Your task to perform on an android device: Turn off the flashlight Image 0: 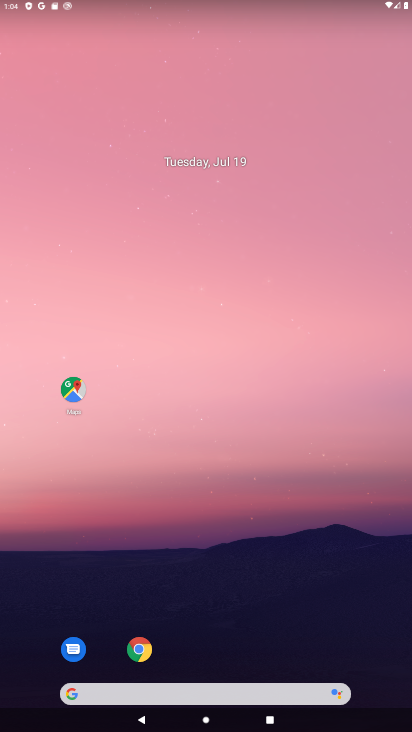
Step 0: drag from (185, 675) to (180, 125)
Your task to perform on an android device: Turn off the flashlight Image 1: 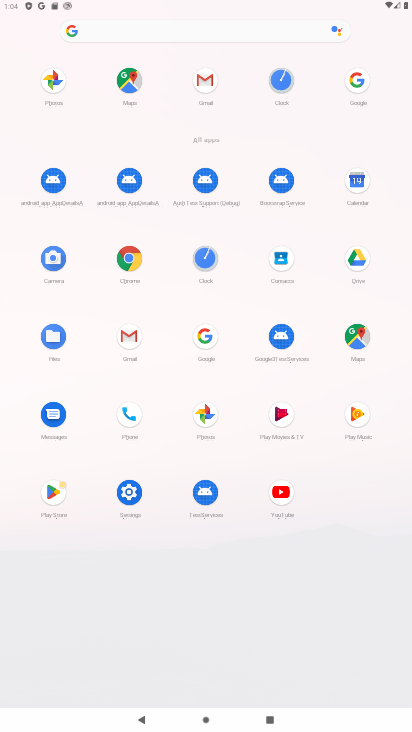
Step 1: click (125, 491)
Your task to perform on an android device: Turn off the flashlight Image 2: 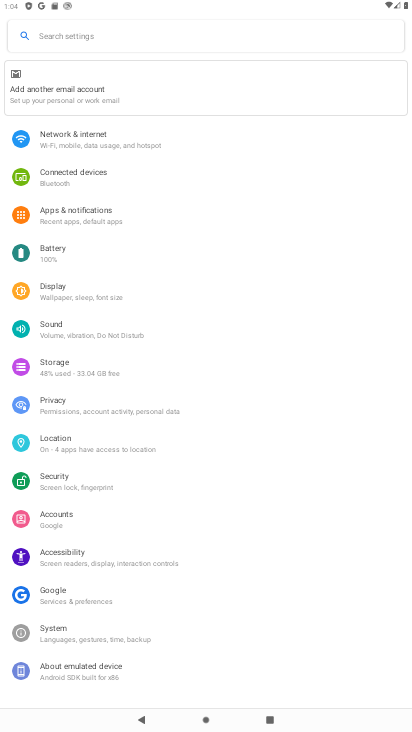
Step 2: task complete